Your task to perform on an android device: change timer sound Image 0: 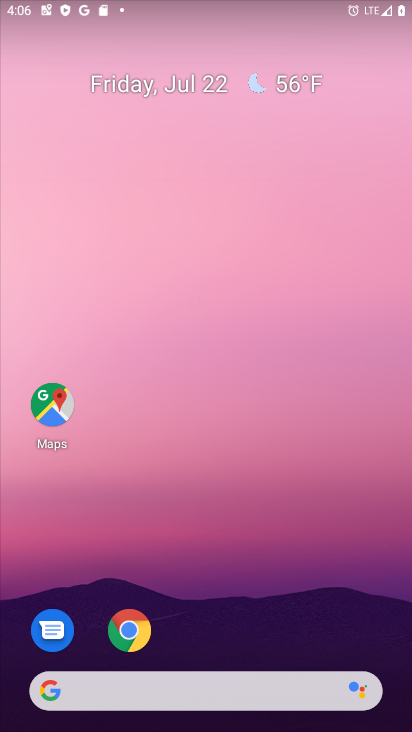
Step 0: drag from (206, 693) to (155, 314)
Your task to perform on an android device: change timer sound Image 1: 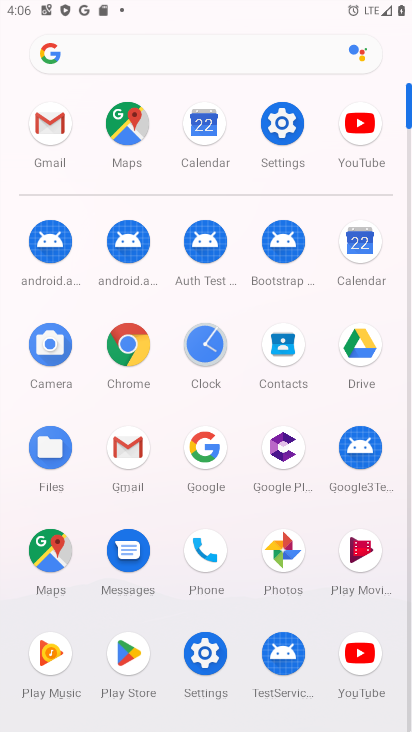
Step 1: click (210, 348)
Your task to perform on an android device: change timer sound Image 2: 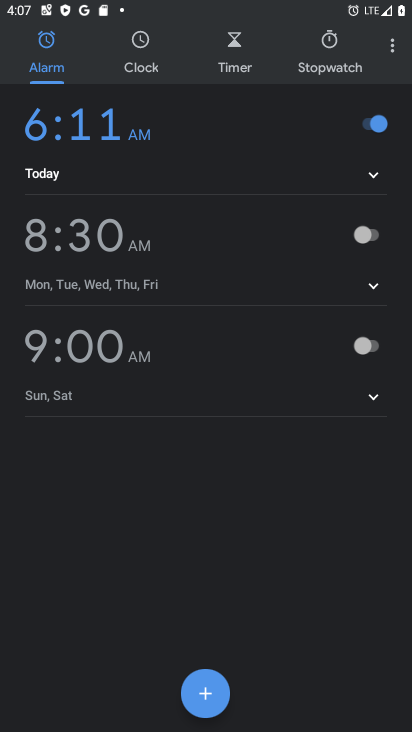
Step 2: click (388, 48)
Your task to perform on an android device: change timer sound Image 3: 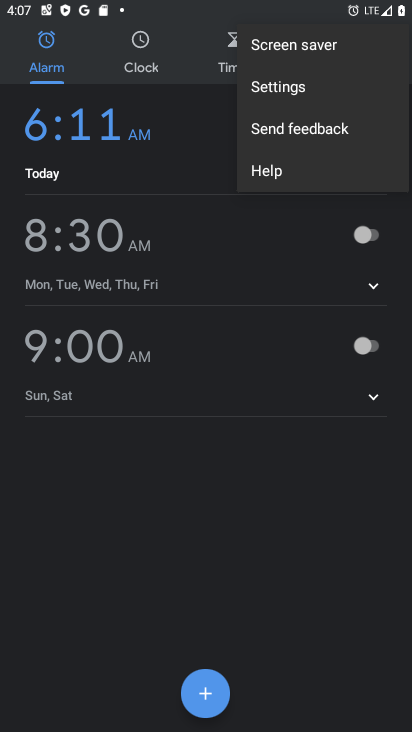
Step 3: click (301, 91)
Your task to perform on an android device: change timer sound Image 4: 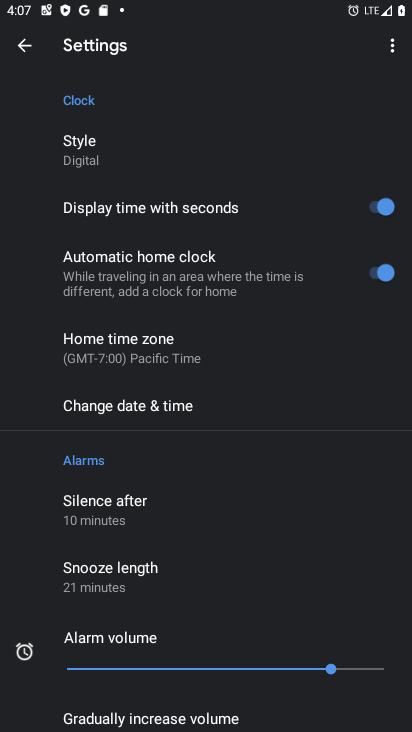
Step 4: drag from (159, 625) to (118, 149)
Your task to perform on an android device: change timer sound Image 5: 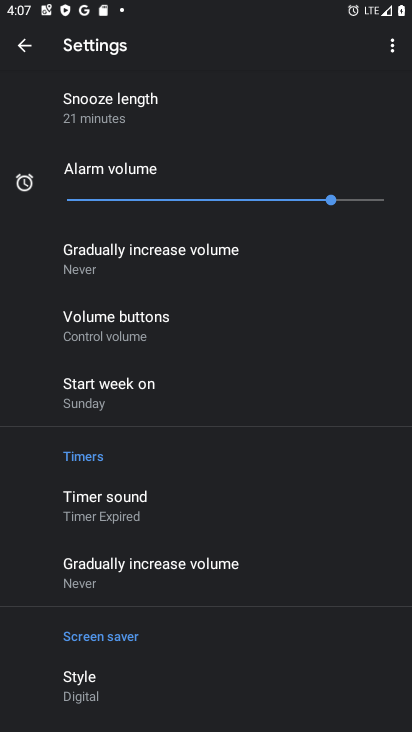
Step 5: click (155, 513)
Your task to perform on an android device: change timer sound Image 6: 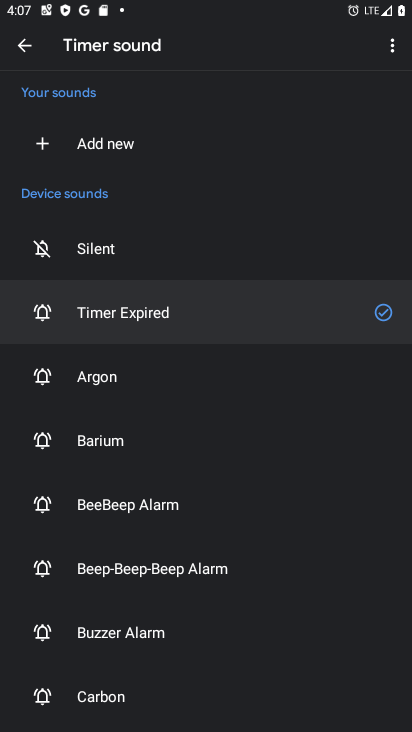
Step 6: click (114, 636)
Your task to perform on an android device: change timer sound Image 7: 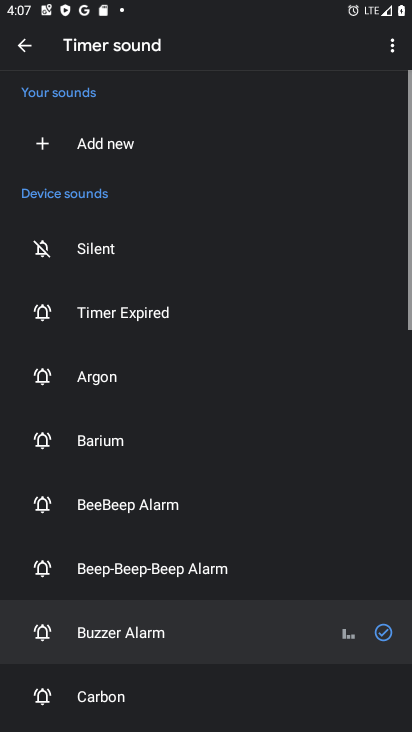
Step 7: task complete